Your task to perform on an android device: open chrome privacy settings Image 0: 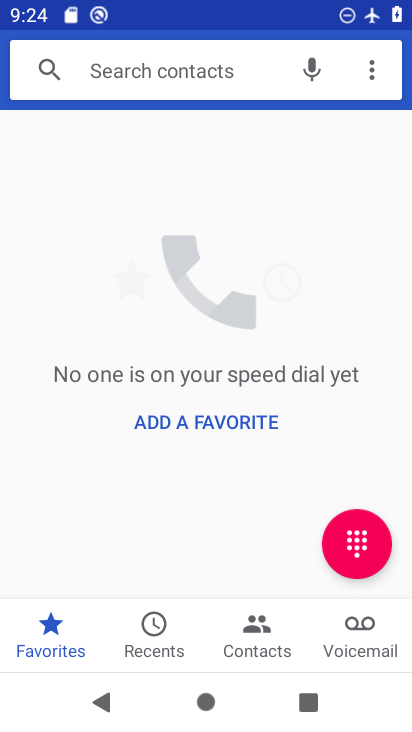
Step 0: press home button
Your task to perform on an android device: open chrome privacy settings Image 1: 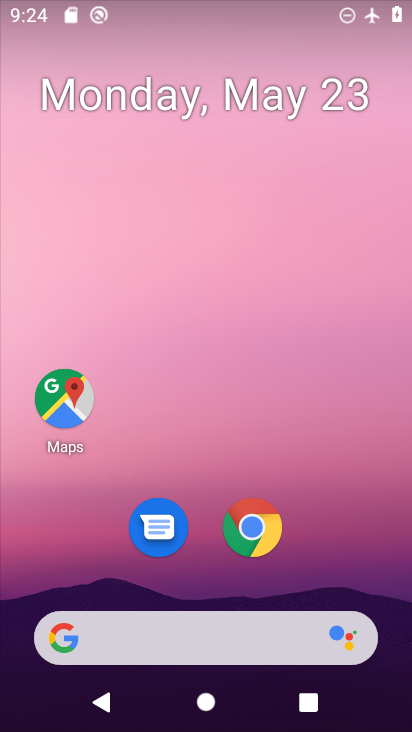
Step 1: click (266, 527)
Your task to perform on an android device: open chrome privacy settings Image 2: 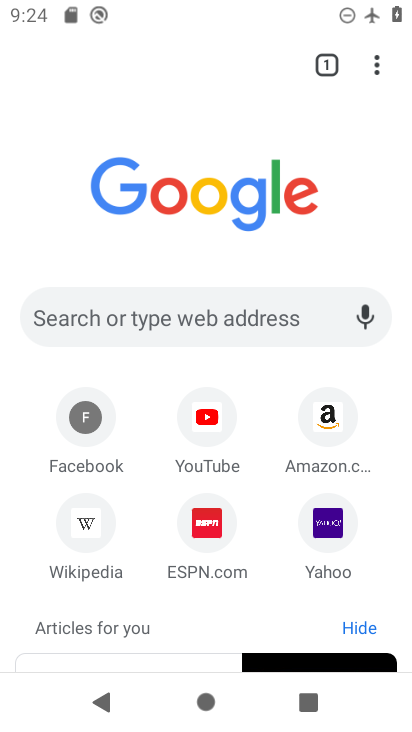
Step 2: click (377, 69)
Your task to perform on an android device: open chrome privacy settings Image 3: 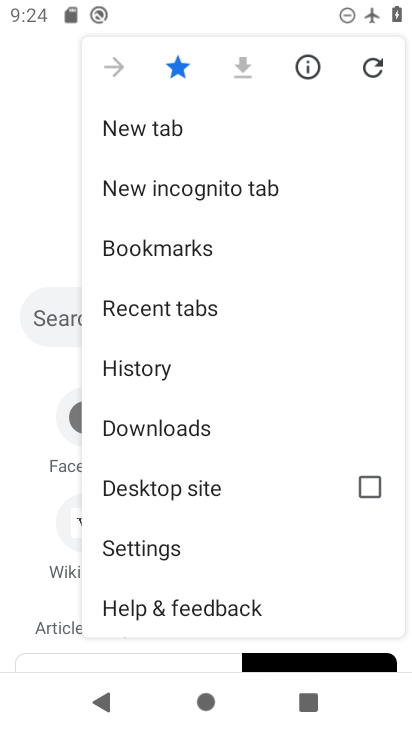
Step 3: click (191, 548)
Your task to perform on an android device: open chrome privacy settings Image 4: 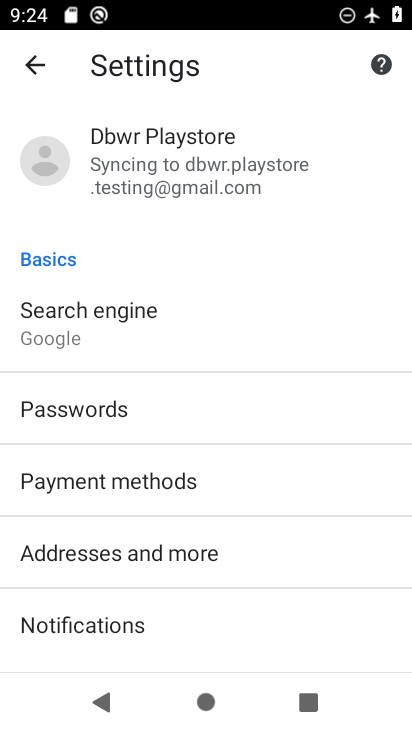
Step 4: drag from (246, 495) to (272, 231)
Your task to perform on an android device: open chrome privacy settings Image 5: 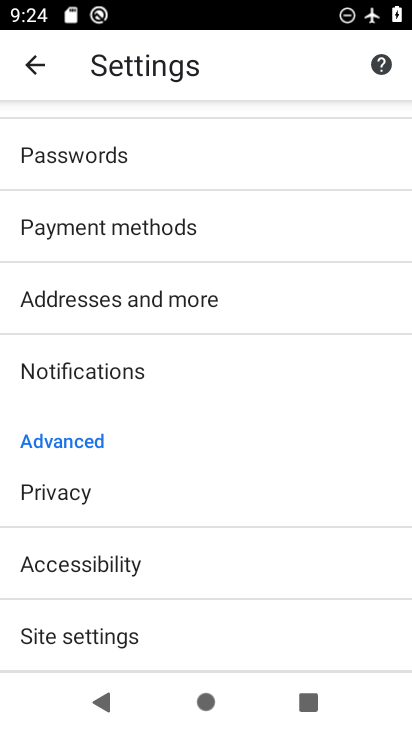
Step 5: click (170, 494)
Your task to perform on an android device: open chrome privacy settings Image 6: 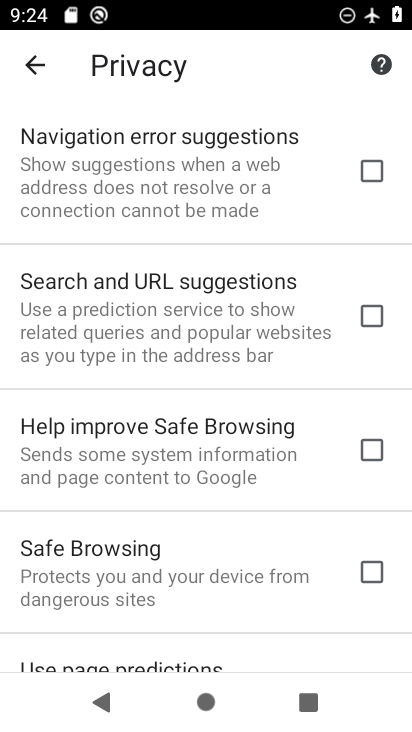
Step 6: task complete